Your task to perform on an android device: Open Wikipedia Image 0: 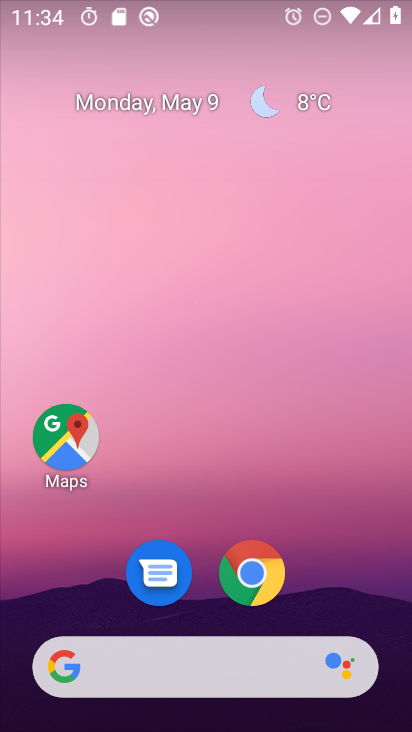
Step 0: click (252, 571)
Your task to perform on an android device: Open Wikipedia Image 1: 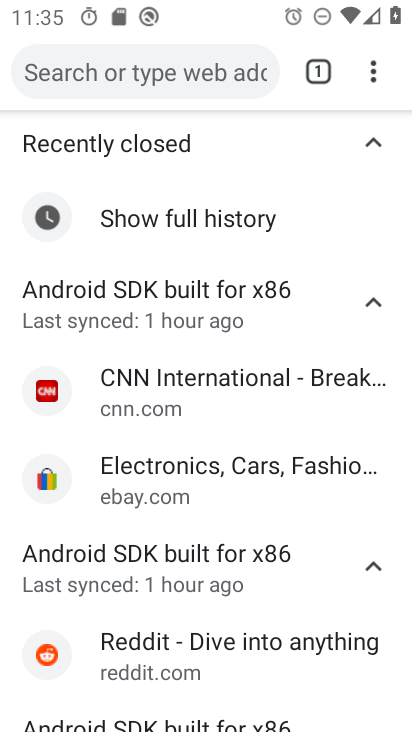
Step 1: click (137, 76)
Your task to perform on an android device: Open Wikipedia Image 2: 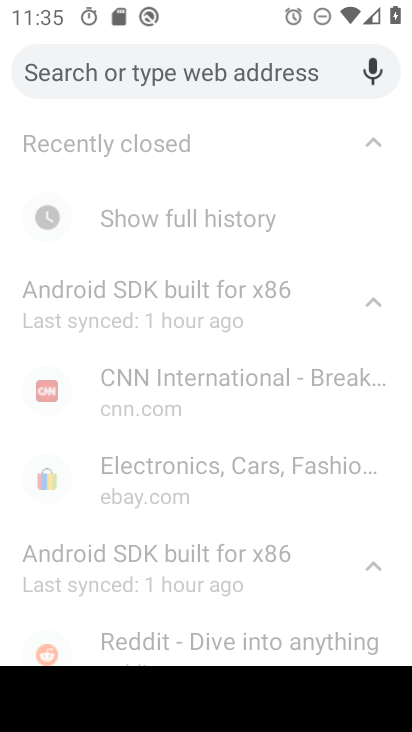
Step 2: type "wikipedia"
Your task to perform on an android device: Open Wikipedia Image 3: 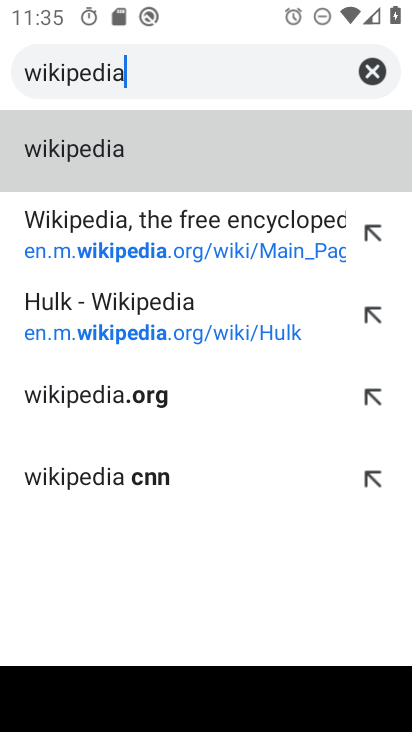
Step 3: click (61, 155)
Your task to perform on an android device: Open Wikipedia Image 4: 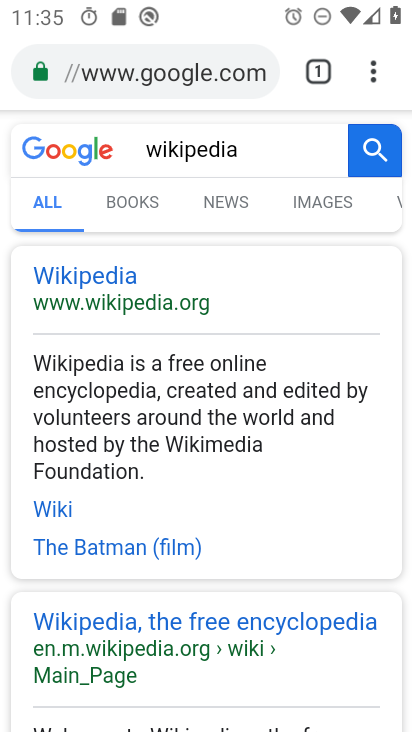
Step 4: click (95, 276)
Your task to perform on an android device: Open Wikipedia Image 5: 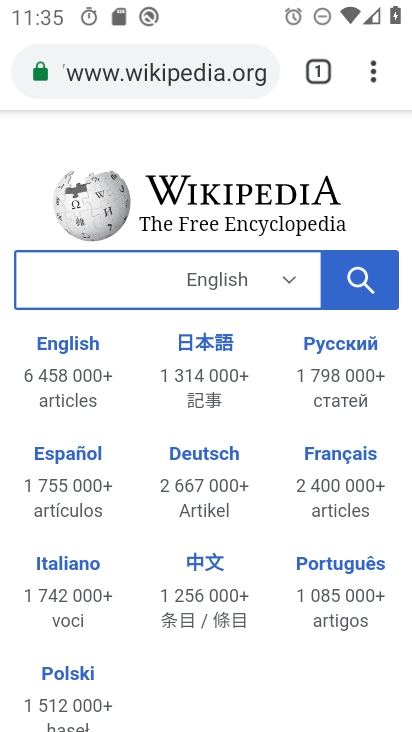
Step 5: task complete